Your task to perform on an android device: turn vacation reply on in the gmail app Image 0: 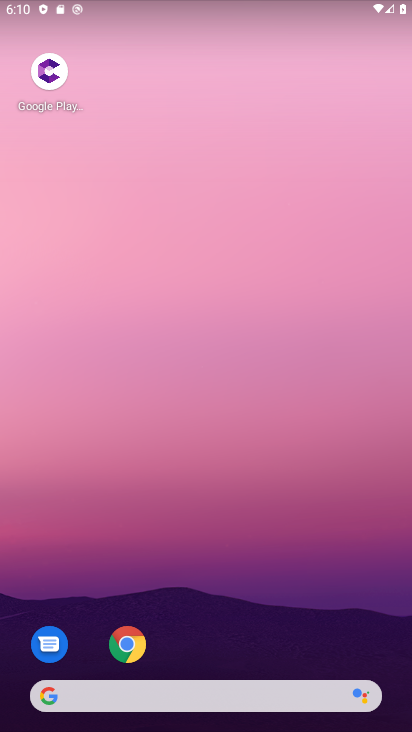
Step 0: drag from (174, 633) to (233, 144)
Your task to perform on an android device: turn vacation reply on in the gmail app Image 1: 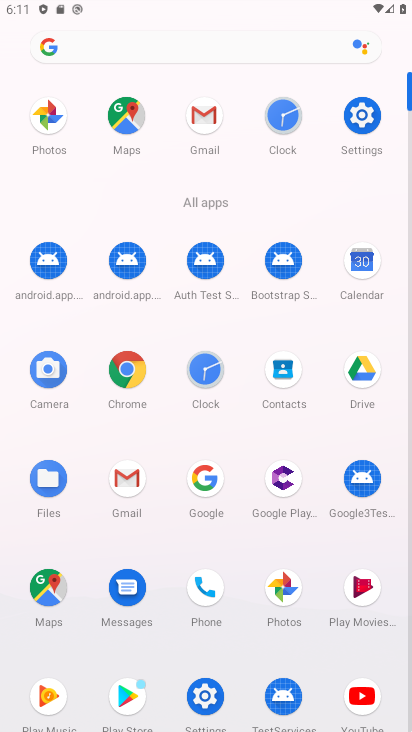
Step 1: click (136, 473)
Your task to perform on an android device: turn vacation reply on in the gmail app Image 2: 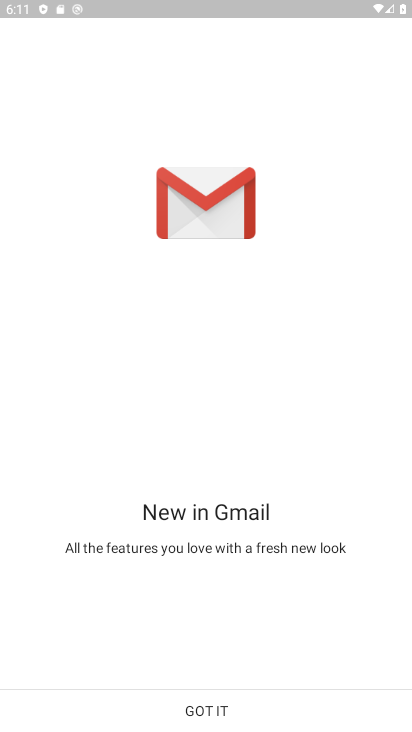
Step 2: click (243, 712)
Your task to perform on an android device: turn vacation reply on in the gmail app Image 3: 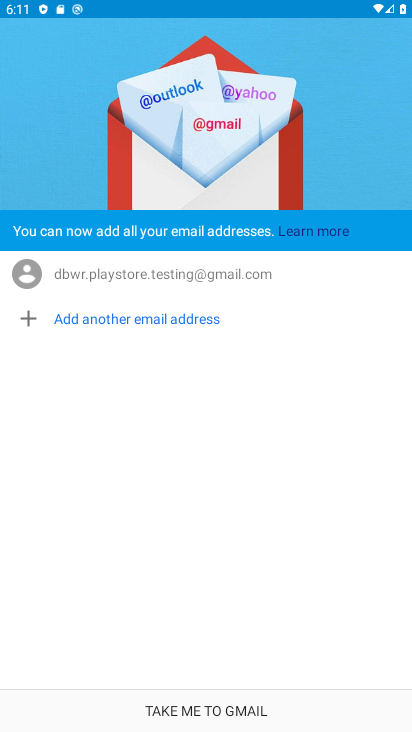
Step 3: click (243, 712)
Your task to perform on an android device: turn vacation reply on in the gmail app Image 4: 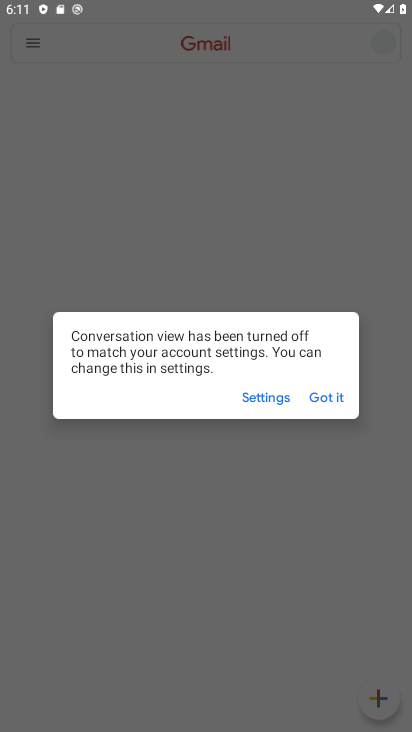
Step 4: click (336, 391)
Your task to perform on an android device: turn vacation reply on in the gmail app Image 5: 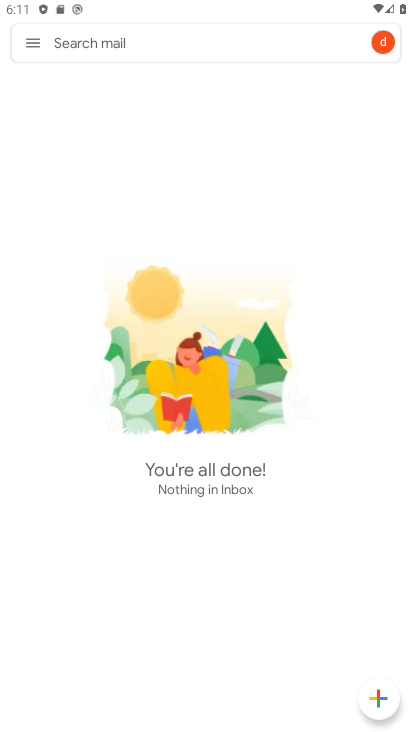
Step 5: click (24, 45)
Your task to perform on an android device: turn vacation reply on in the gmail app Image 6: 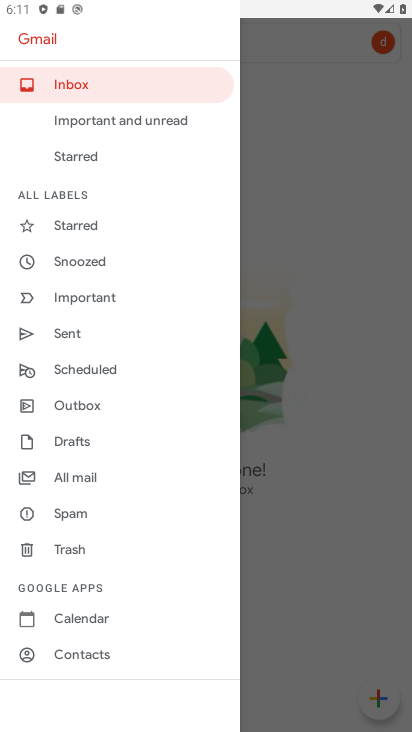
Step 6: drag from (100, 615) to (102, 412)
Your task to perform on an android device: turn vacation reply on in the gmail app Image 7: 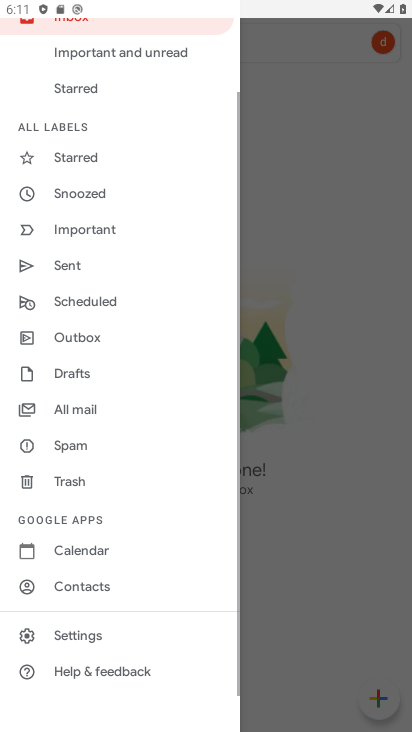
Step 7: click (71, 639)
Your task to perform on an android device: turn vacation reply on in the gmail app Image 8: 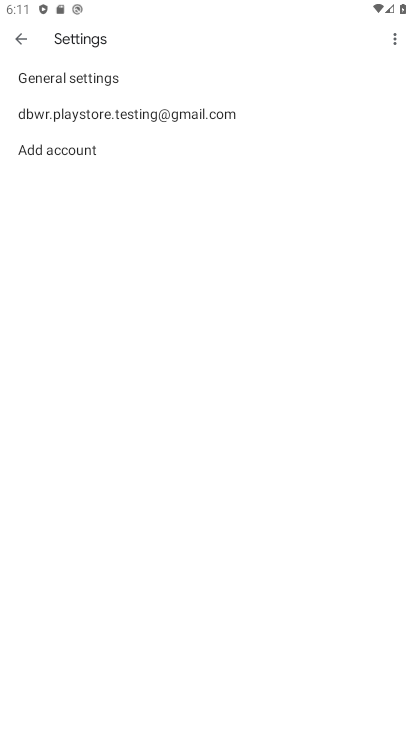
Step 8: click (125, 126)
Your task to perform on an android device: turn vacation reply on in the gmail app Image 9: 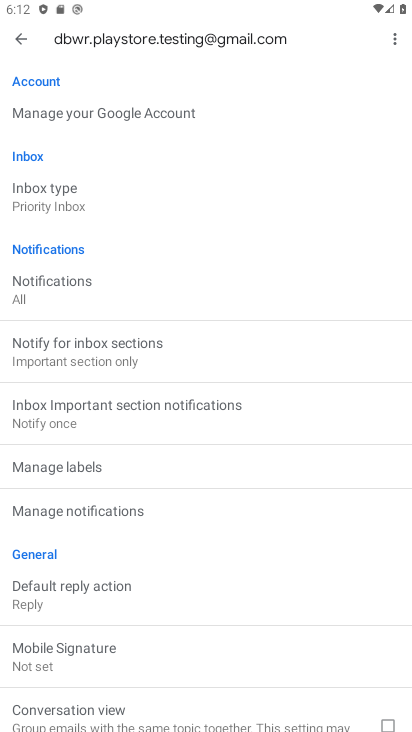
Step 9: drag from (96, 639) to (128, 319)
Your task to perform on an android device: turn vacation reply on in the gmail app Image 10: 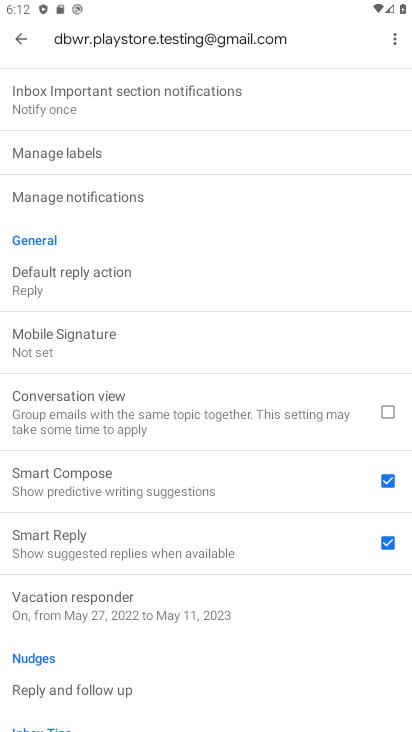
Step 10: click (100, 626)
Your task to perform on an android device: turn vacation reply on in the gmail app Image 11: 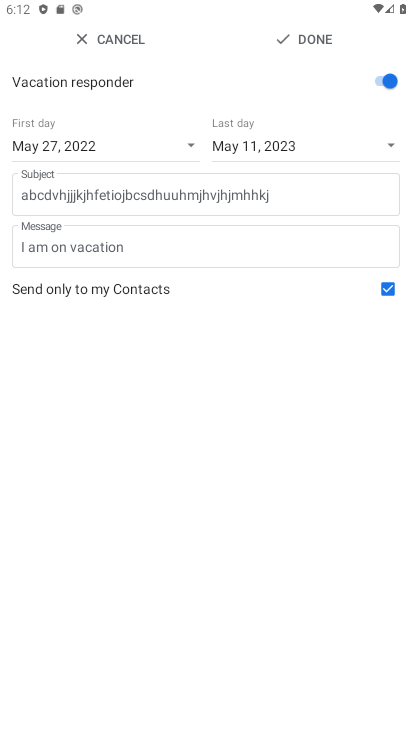
Step 11: task complete